Your task to perform on an android device: allow notifications from all sites in the chrome app Image 0: 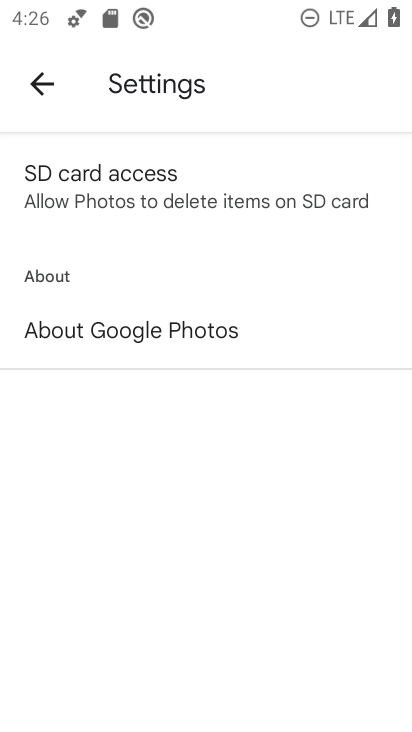
Step 0: press home button
Your task to perform on an android device: allow notifications from all sites in the chrome app Image 1: 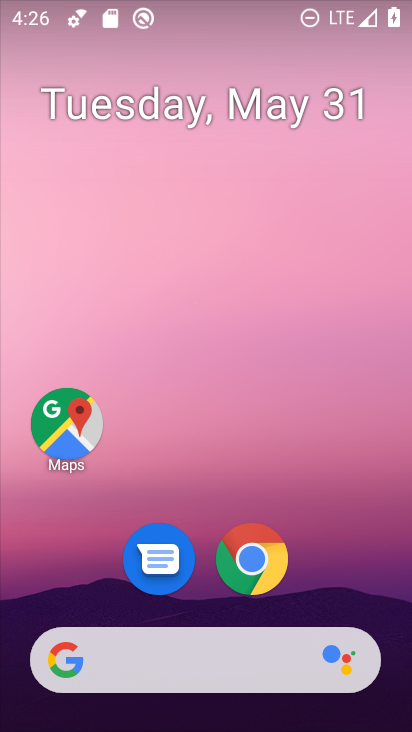
Step 1: drag from (243, 718) to (244, 154)
Your task to perform on an android device: allow notifications from all sites in the chrome app Image 2: 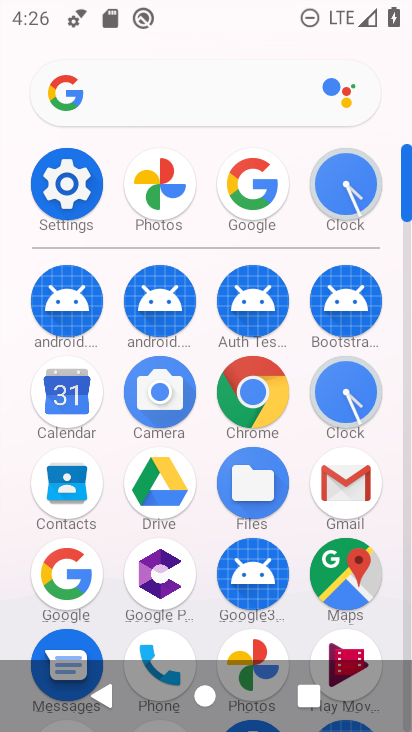
Step 2: click (249, 397)
Your task to perform on an android device: allow notifications from all sites in the chrome app Image 3: 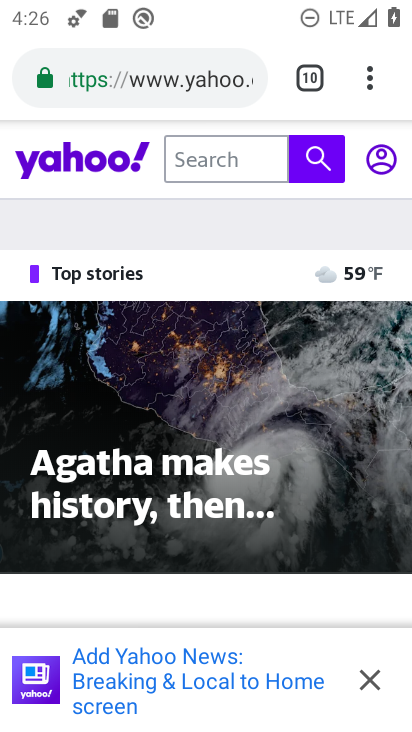
Step 3: click (368, 87)
Your task to perform on an android device: allow notifications from all sites in the chrome app Image 4: 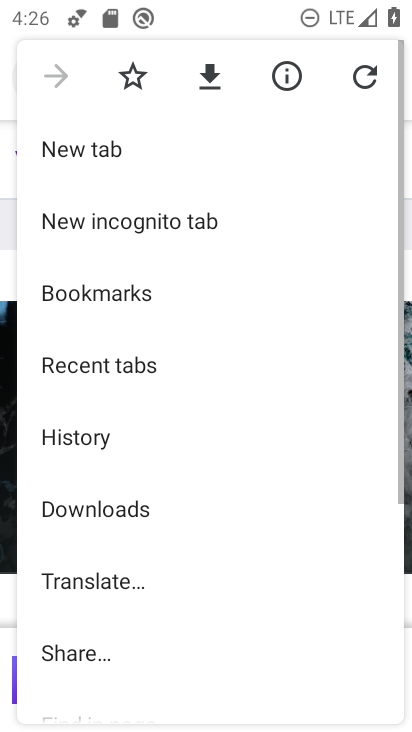
Step 4: drag from (137, 647) to (146, 233)
Your task to perform on an android device: allow notifications from all sites in the chrome app Image 5: 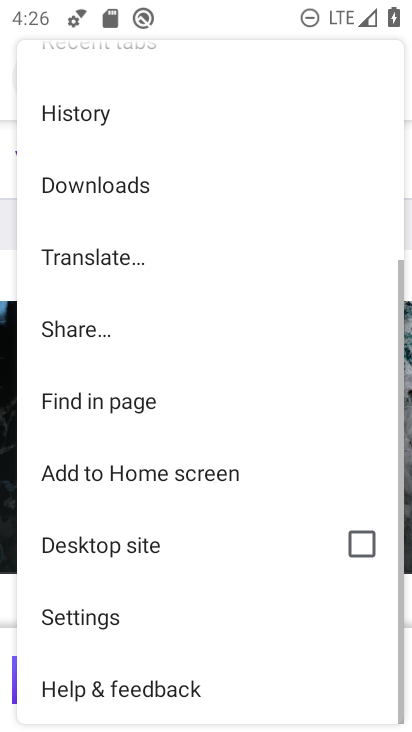
Step 5: click (84, 618)
Your task to perform on an android device: allow notifications from all sites in the chrome app Image 6: 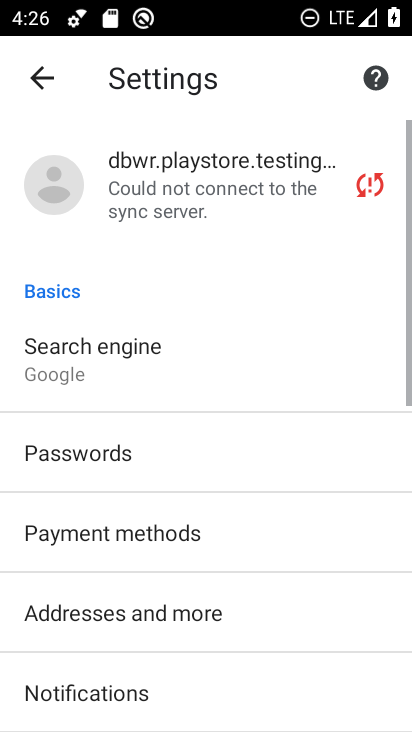
Step 6: drag from (159, 588) to (164, 299)
Your task to perform on an android device: allow notifications from all sites in the chrome app Image 7: 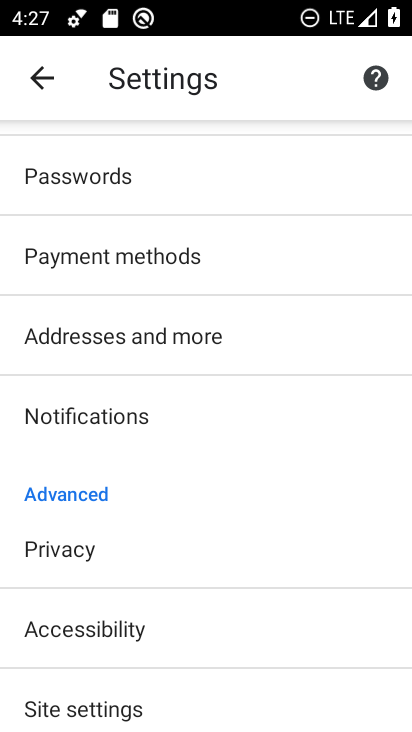
Step 7: click (102, 702)
Your task to perform on an android device: allow notifications from all sites in the chrome app Image 8: 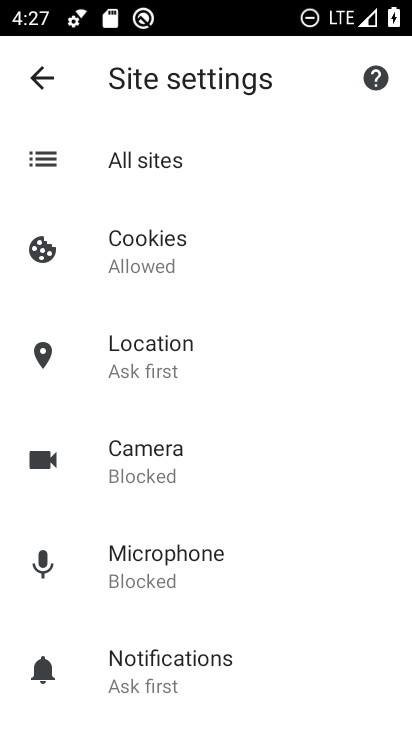
Step 8: click (141, 661)
Your task to perform on an android device: allow notifications from all sites in the chrome app Image 9: 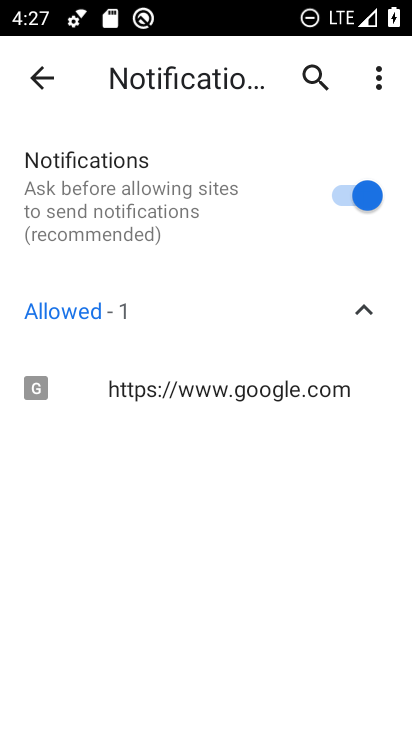
Step 9: task complete